Your task to perform on an android device: Go to eBay Image 0: 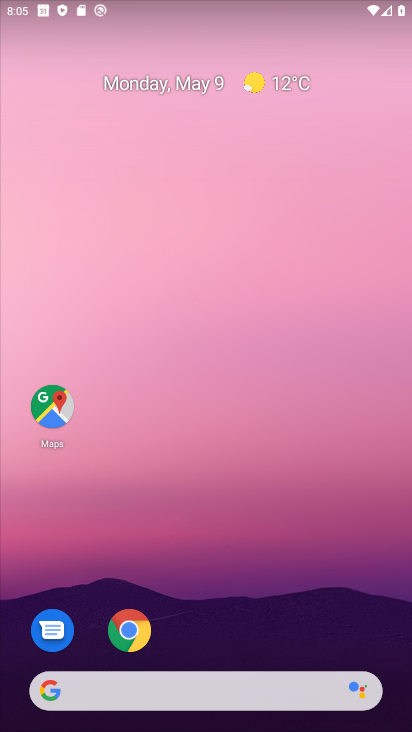
Step 0: click (135, 638)
Your task to perform on an android device: Go to eBay Image 1: 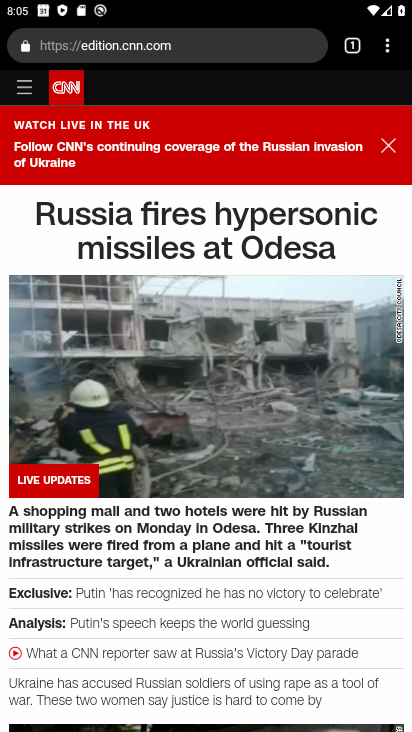
Step 1: click (354, 49)
Your task to perform on an android device: Go to eBay Image 2: 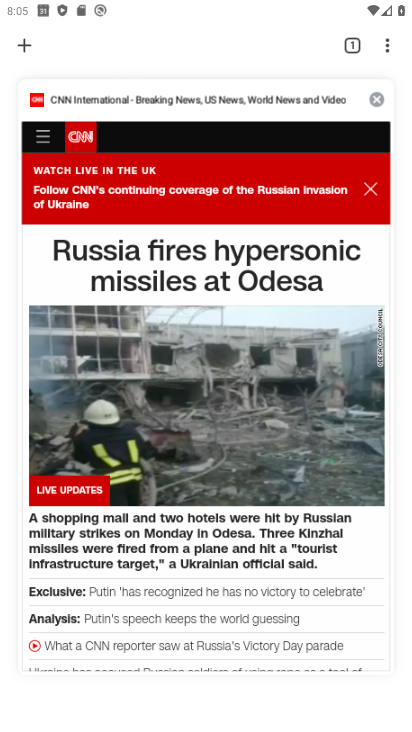
Step 2: click (374, 93)
Your task to perform on an android device: Go to eBay Image 3: 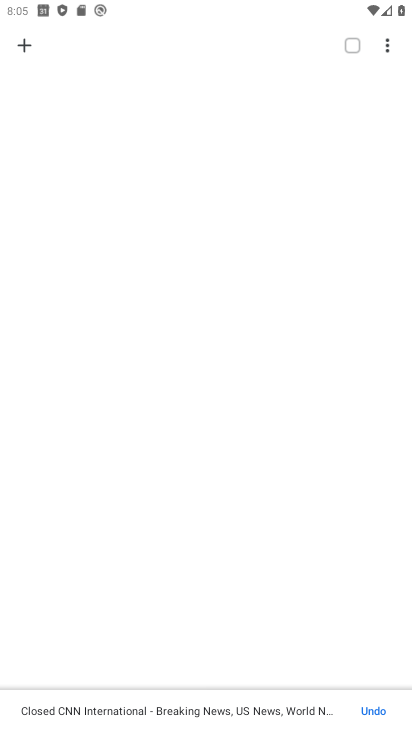
Step 3: click (24, 48)
Your task to perform on an android device: Go to eBay Image 4: 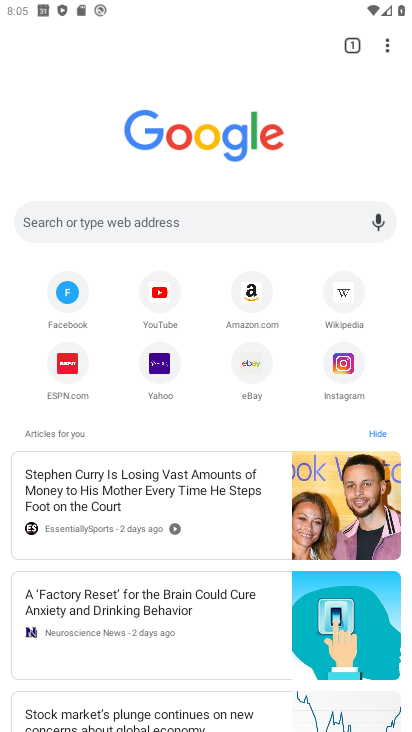
Step 4: click (249, 359)
Your task to perform on an android device: Go to eBay Image 5: 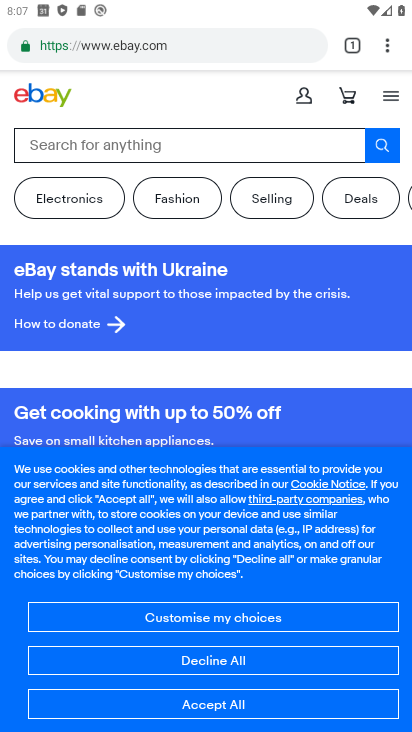
Step 5: task complete